Your task to perform on an android device: What's on my calendar today? Image 0: 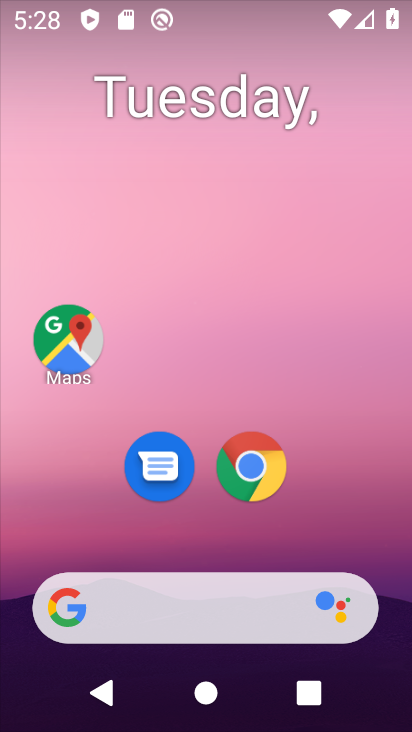
Step 0: press home button
Your task to perform on an android device: What's on my calendar today? Image 1: 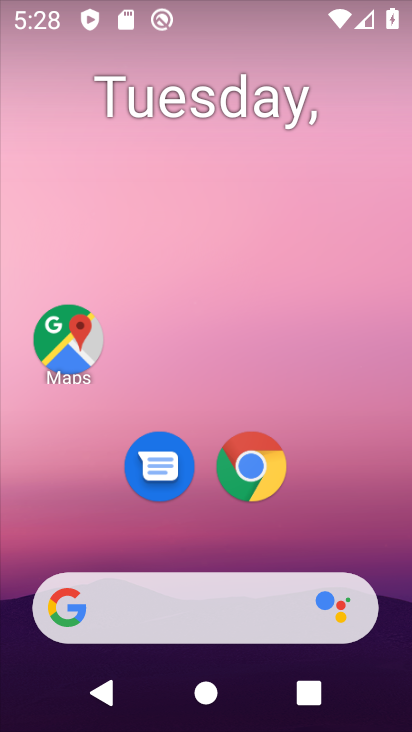
Step 1: drag from (386, 552) to (374, 93)
Your task to perform on an android device: What's on my calendar today? Image 2: 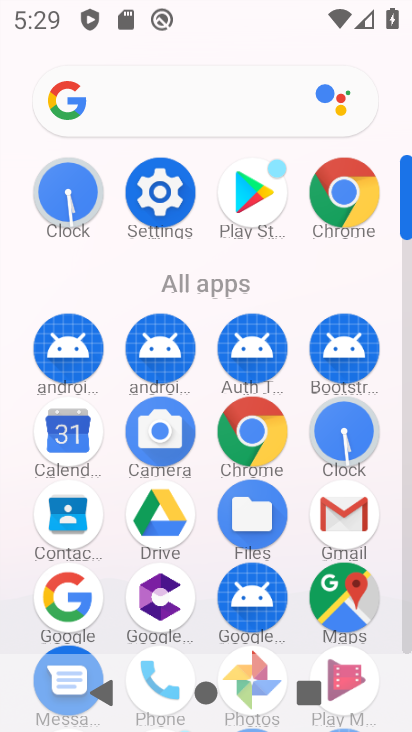
Step 2: click (54, 434)
Your task to perform on an android device: What's on my calendar today? Image 3: 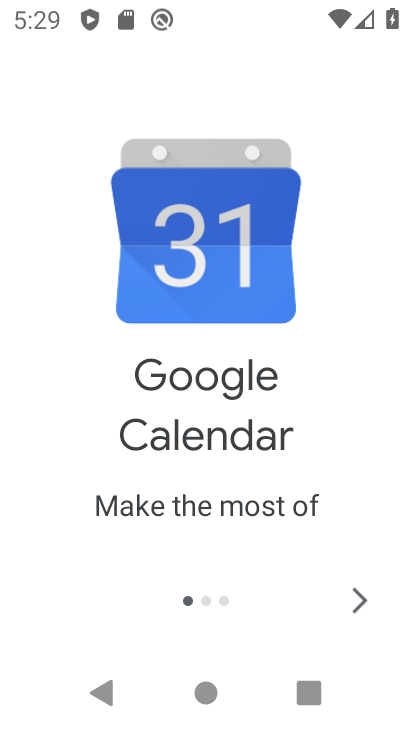
Step 3: click (360, 602)
Your task to perform on an android device: What's on my calendar today? Image 4: 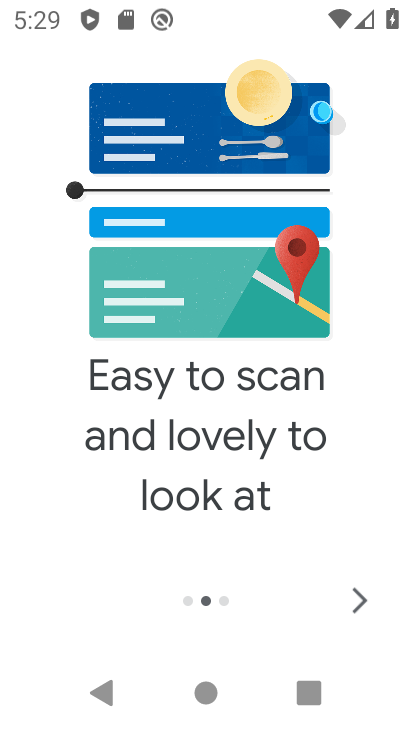
Step 4: click (360, 602)
Your task to perform on an android device: What's on my calendar today? Image 5: 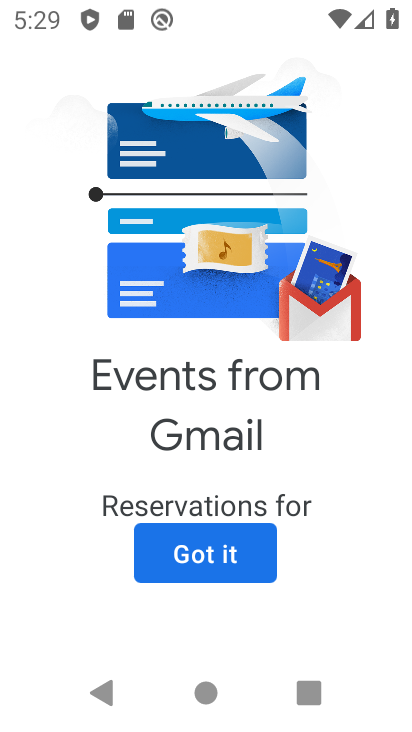
Step 5: click (234, 562)
Your task to perform on an android device: What's on my calendar today? Image 6: 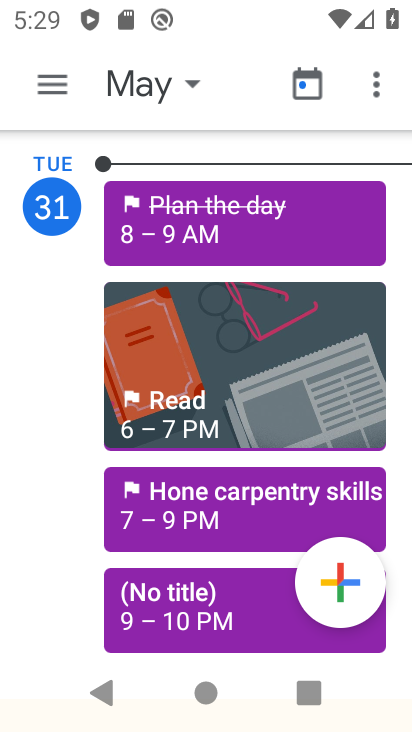
Step 6: click (191, 79)
Your task to perform on an android device: What's on my calendar today? Image 7: 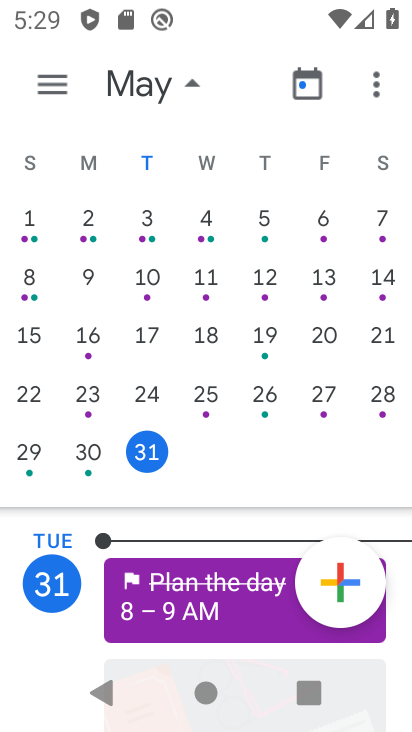
Step 7: click (183, 85)
Your task to perform on an android device: What's on my calendar today? Image 8: 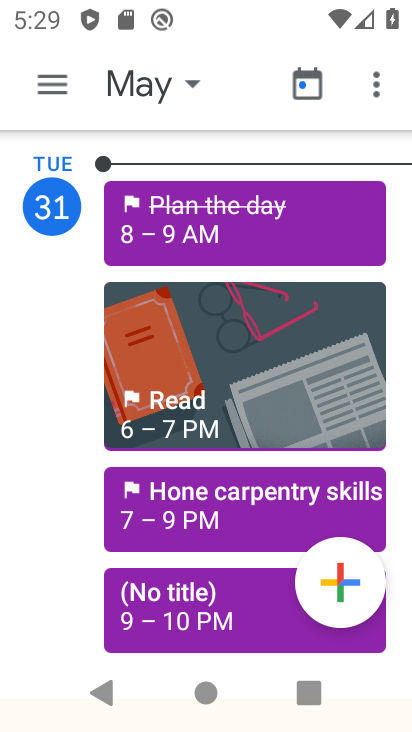
Step 8: task complete